Your task to perform on an android device: check storage Image 0: 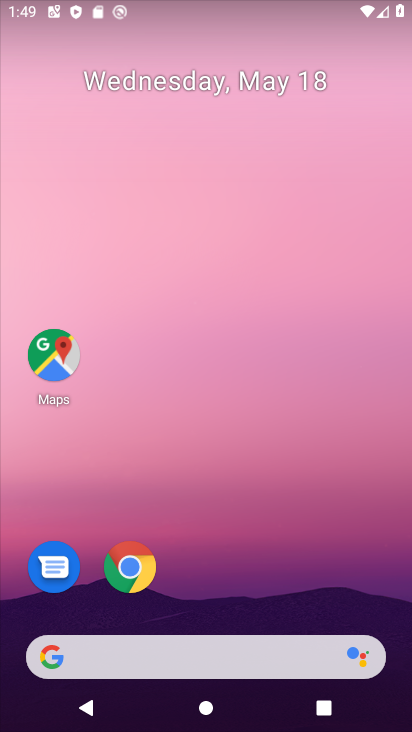
Step 0: drag from (266, 601) to (307, 134)
Your task to perform on an android device: check storage Image 1: 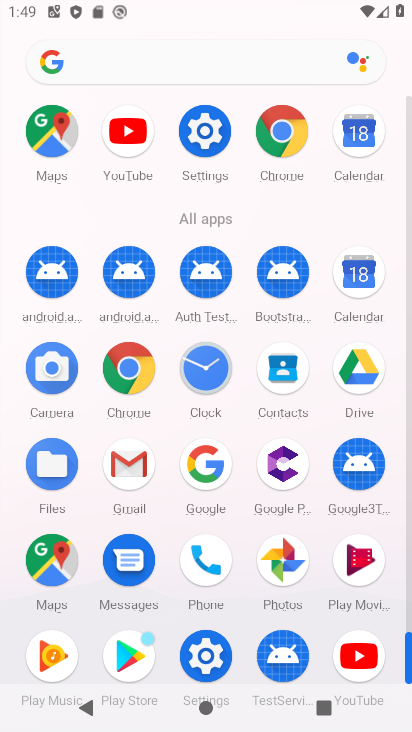
Step 1: click (215, 135)
Your task to perform on an android device: check storage Image 2: 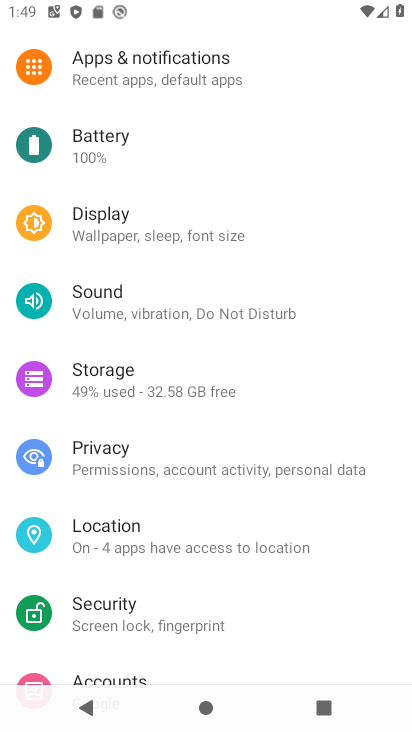
Step 2: click (127, 382)
Your task to perform on an android device: check storage Image 3: 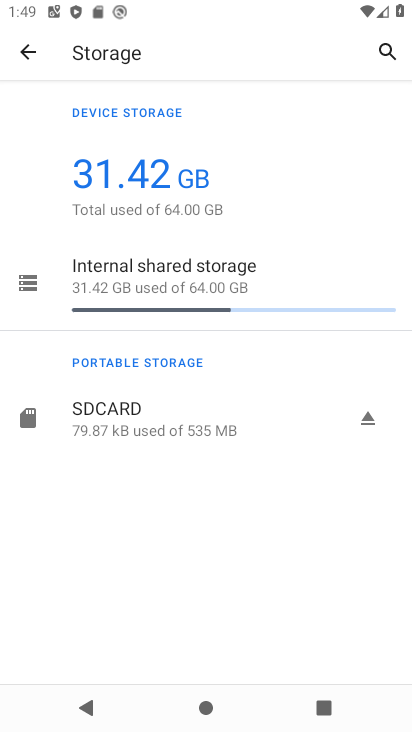
Step 3: task complete